Your task to perform on an android device: Go to Android settings Image 0: 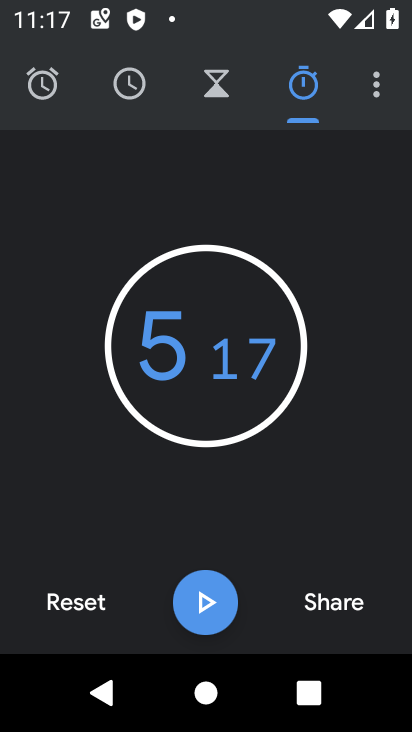
Step 0: press home button
Your task to perform on an android device: Go to Android settings Image 1: 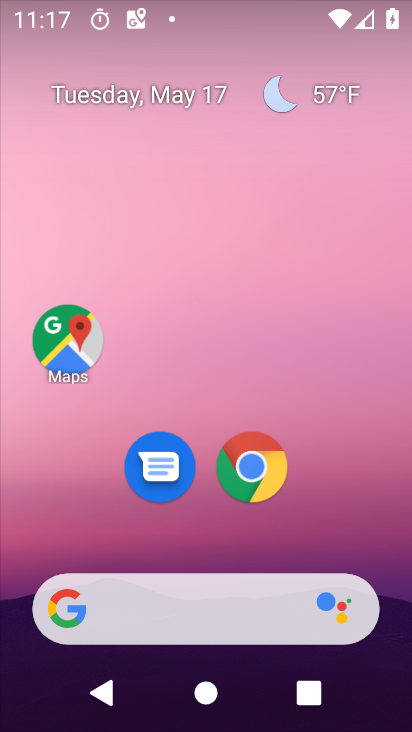
Step 1: drag from (178, 569) to (178, 59)
Your task to perform on an android device: Go to Android settings Image 2: 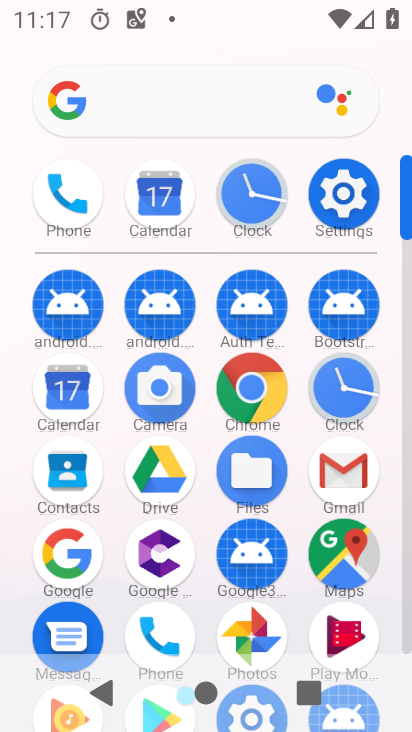
Step 2: click (331, 205)
Your task to perform on an android device: Go to Android settings Image 3: 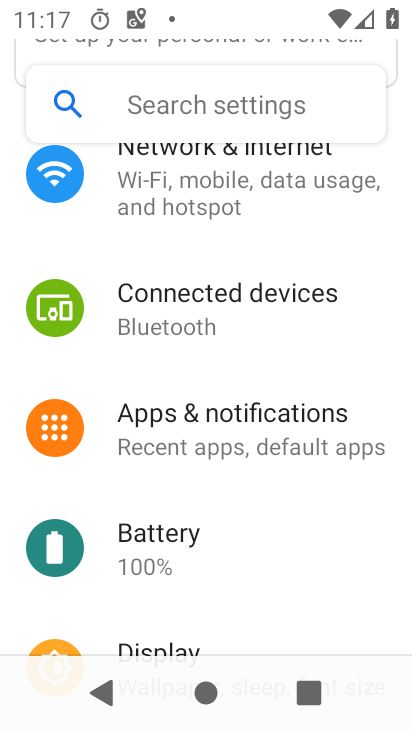
Step 3: task complete